Your task to perform on an android device: allow notifications from all sites in the chrome app Image 0: 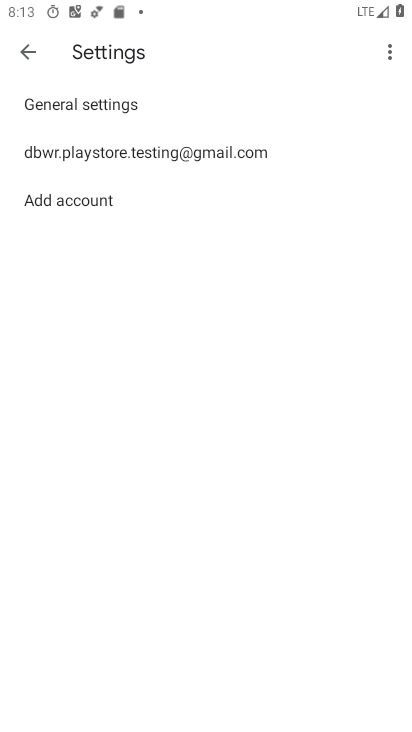
Step 0: press home button
Your task to perform on an android device: allow notifications from all sites in the chrome app Image 1: 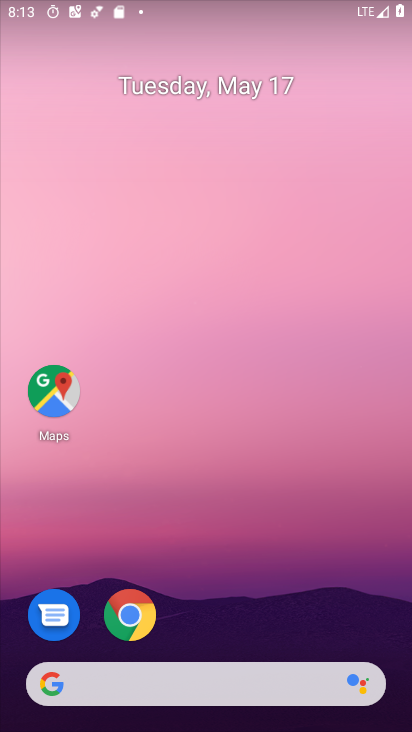
Step 1: click (138, 629)
Your task to perform on an android device: allow notifications from all sites in the chrome app Image 2: 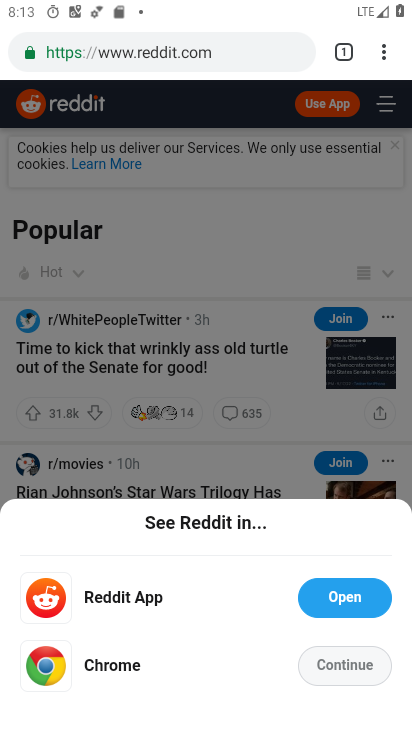
Step 2: drag from (380, 52) to (220, 586)
Your task to perform on an android device: allow notifications from all sites in the chrome app Image 3: 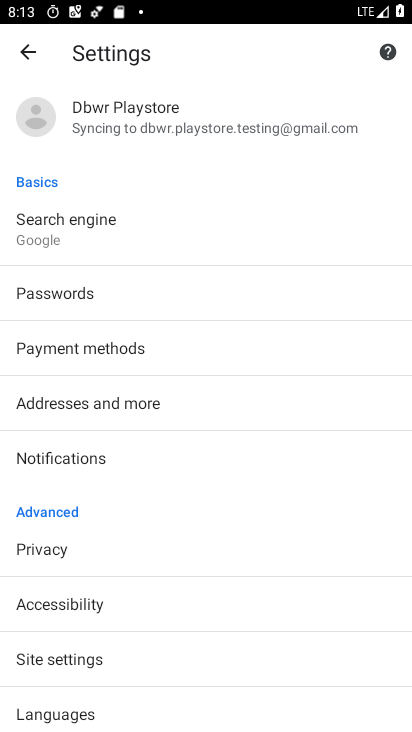
Step 3: drag from (60, 642) to (80, 469)
Your task to perform on an android device: allow notifications from all sites in the chrome app Image 4: 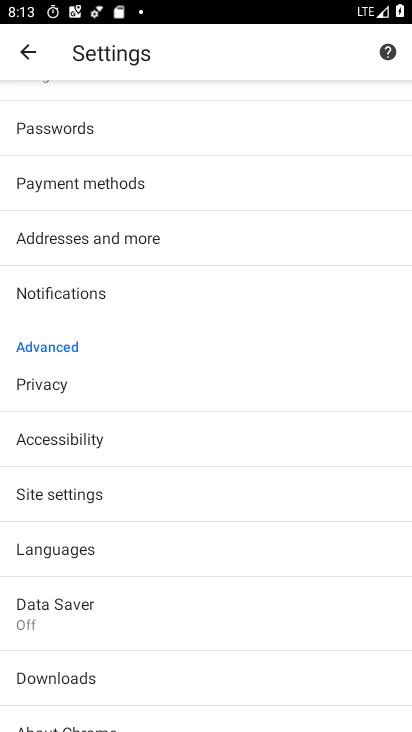
Step 4: click (86, 499)
Your task to perform on an android device: allow notifications from all sites in the chrome app Image 5: 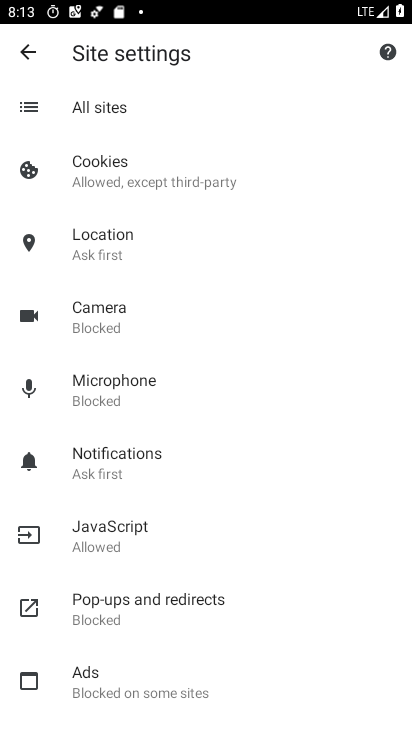
Step 5: click (108, 460)
Your task to perform on an android device: allow notifications from all sites in the chrome app Image 6: 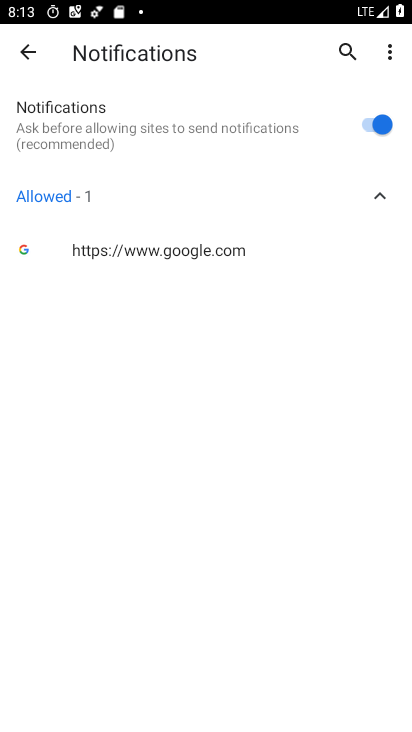
Step 6: task complete